Your task to perform on an android device: Search for top rated pizza restaurants on Maps Image 0: 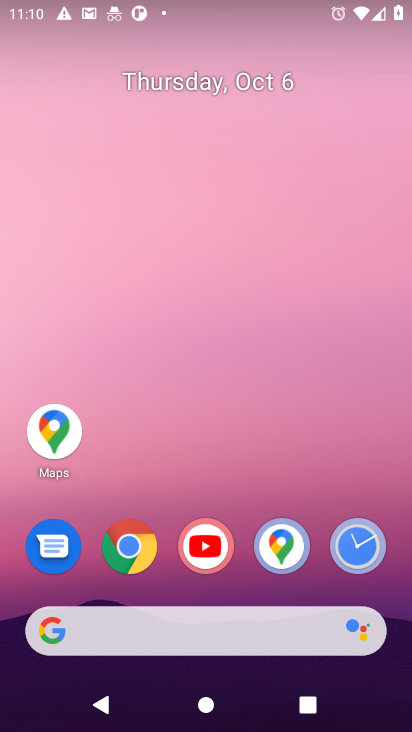
Step 0: click (51, 428)
Your task to perform on an android device: Search for top rated pizza restaurants on Maps Image 1: 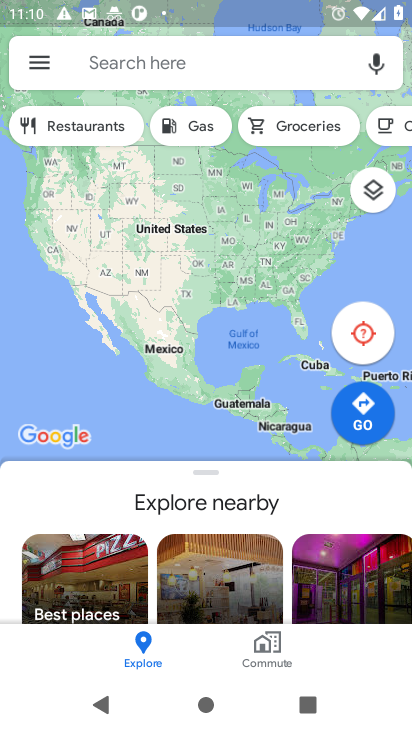
Step 1: click (111, 57)
Your task to perform on an android device: Search for top rated pizza restaurants on Maps Image 2: 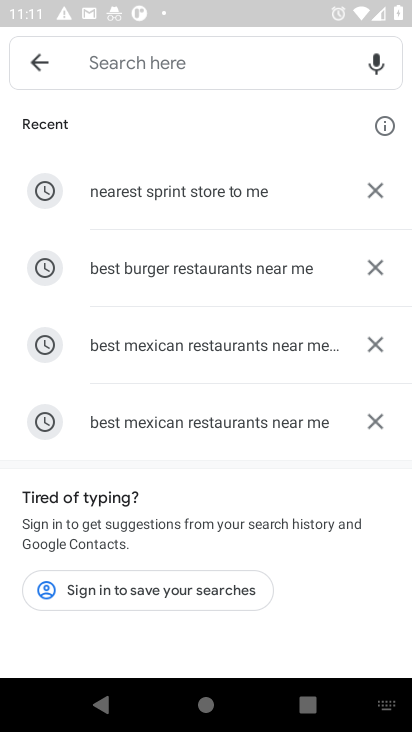
Step 2: type "top rated pizza restaurants"
Your task to perform on an android device: Search for top rated pizza restaurants on Maps Image 3: 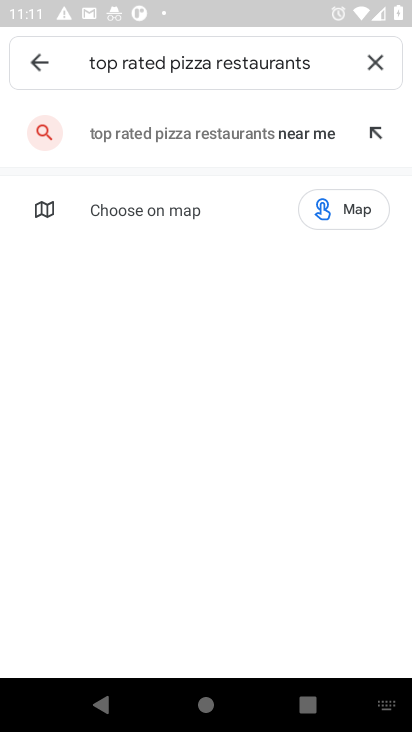
Step 3: click (168, 135)
Your task to perform on an android device: Search for top rated pizza restaurants on Maps Image 4: 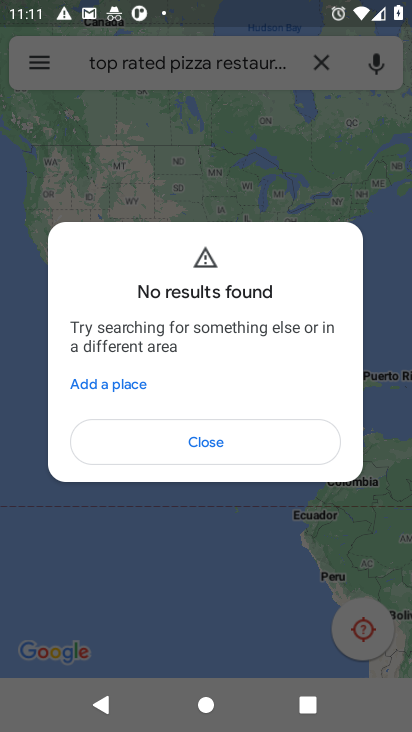
Step 4: click (201, 438)
Your task to perform on an android device: Search for top rated pizza restaurants on Maps Image 5: 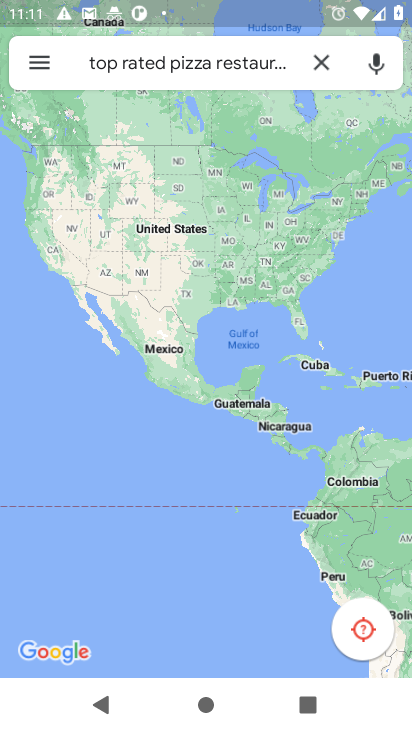
Step 5: task complete